Your task to perform on an android device: change the clock display to analog Image 0: 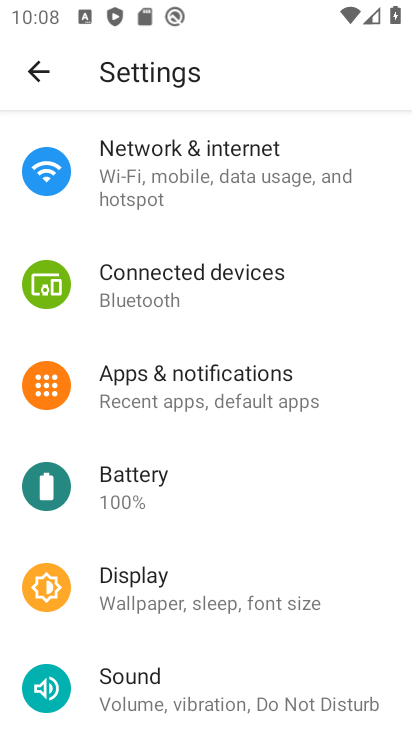
Step 0: press home button
Your task to perform on an android device: change the clock display to analog Image 1: 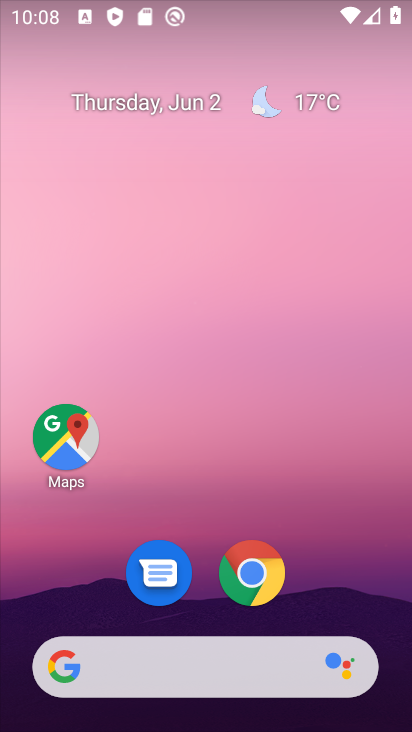
Step 1: drag from (315, 526) to (226, 7)
Your task to perform on an android device: change the clock display to analog Image 2: 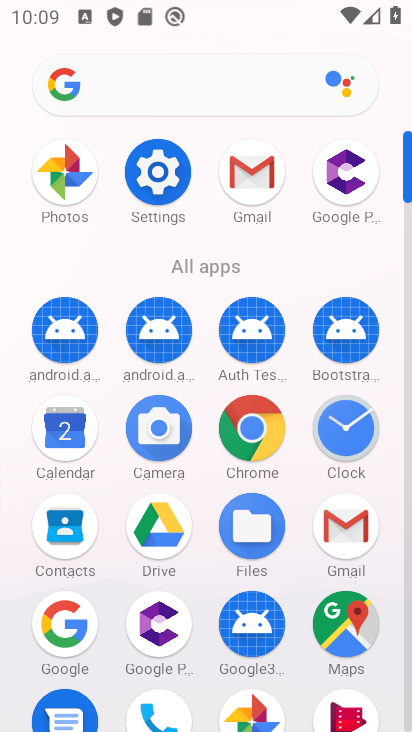
Step 2: click (349, 424)
Your task to perform on an android device: change the clock display to analog Image 3: 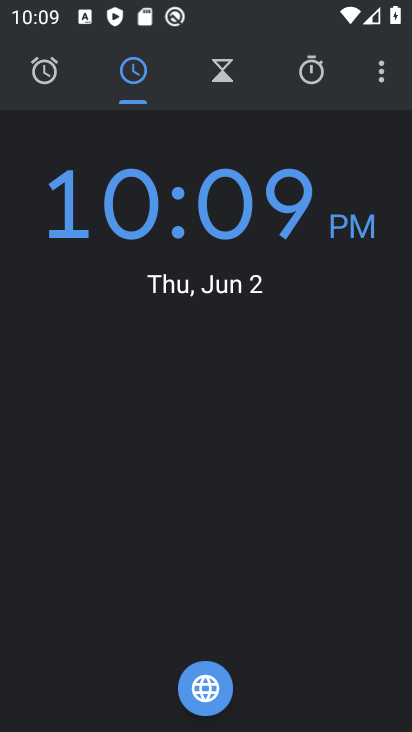
Step 3: click (382, 85)
Your task to perform on an android device: change the clock display to analog Image 4: 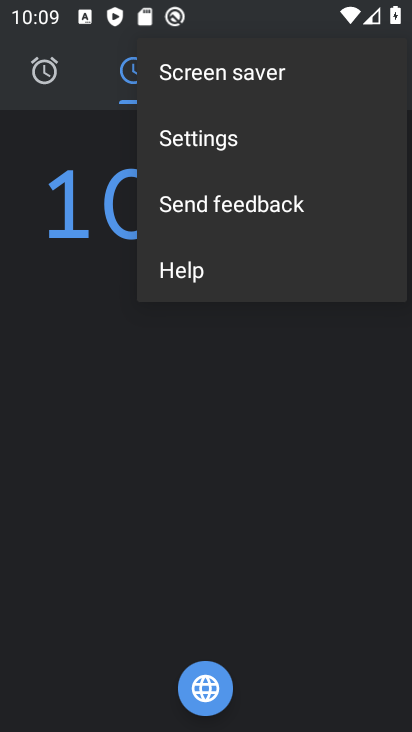
Step 4: click (249, 141)
Your task to perform on an android device: change the clock display to analog Image 5: 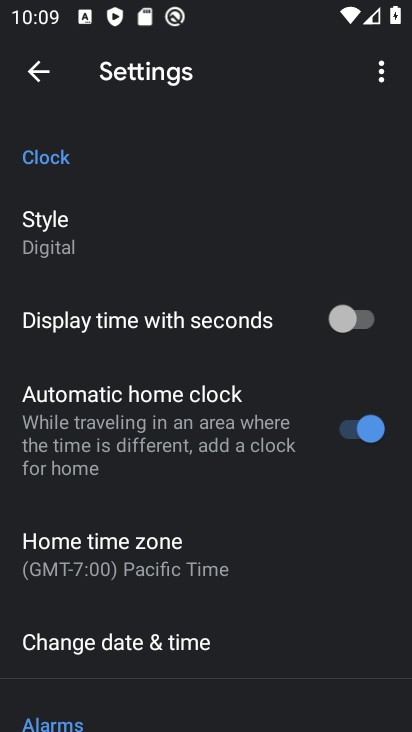
Step 5: click (33, 248)
Your task to perform on an android device: change the clock display to analog Image 6: 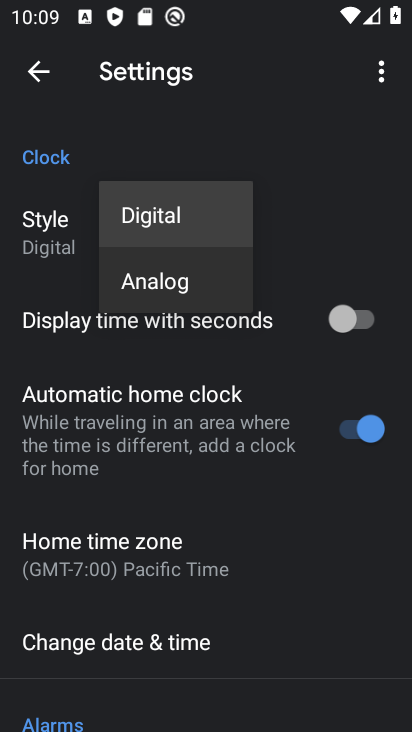
Step 6: click (148, 292)
Your task to perform on an android device: change the clock display to analog Image 7: 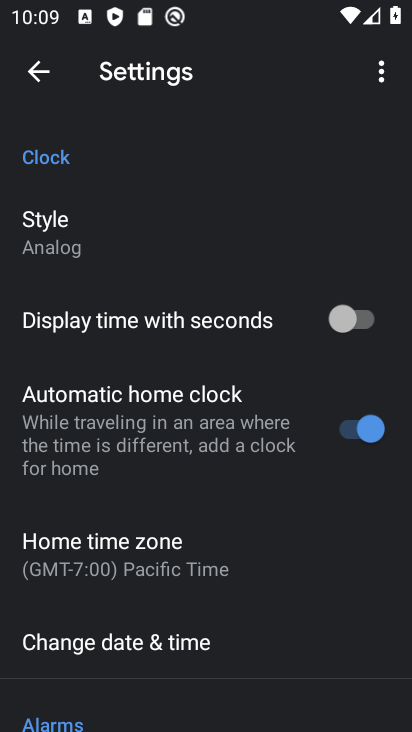
Step 7: task complete